Your task to perform on an android device: What's the weather going to be this weekend? Image 0: 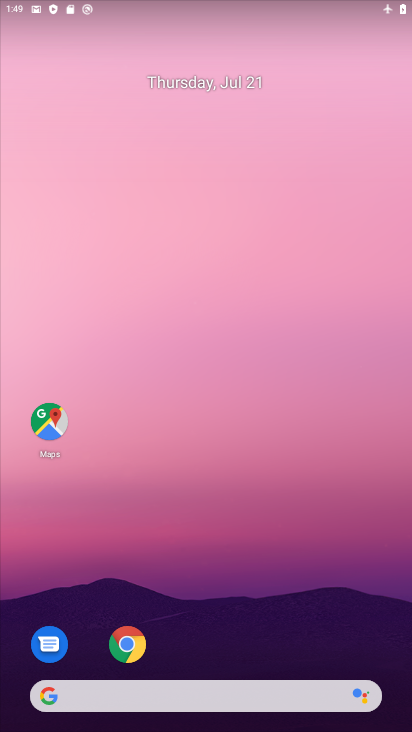
Step 0: drag from (256, 638) to (226, 214)
Your task to perform on an android device: What's the weather going to be this weekend? Image 1: 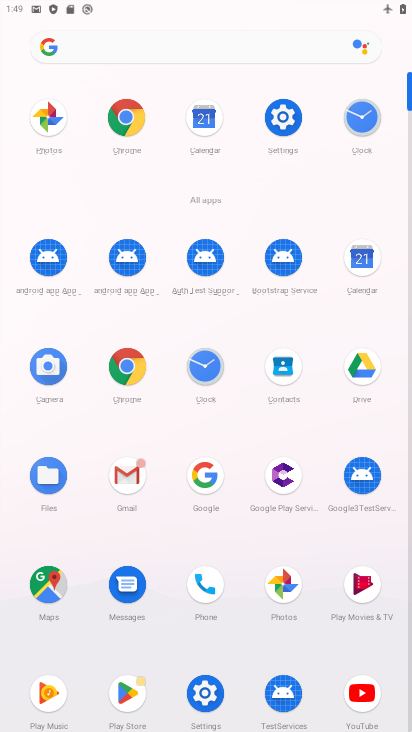
Step 1: click (123, 120)
Your task to perform on an android device: What's the weather going to be this weekend? Image 2: 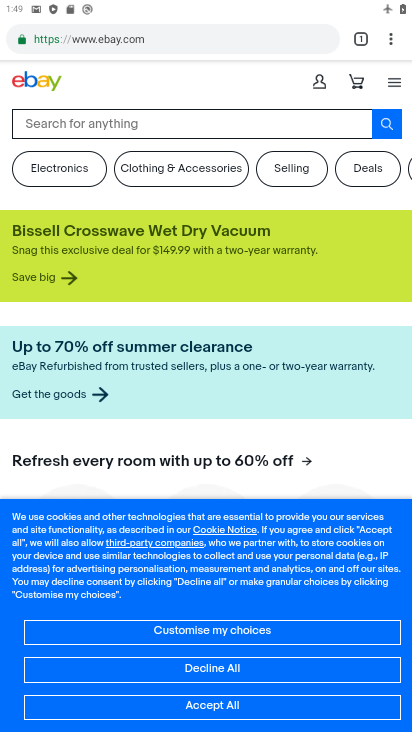
Step 2: click (283, 33)
Your task to perform on an android device: What's the weather going to be this weekend? Image 3: 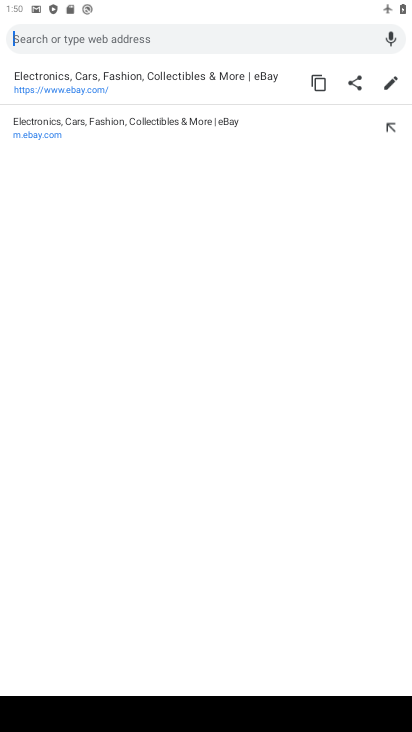
Step 3: type "What's the weather going to be this weekend?"
Your task to perform on an android device: What's the weather going to be this weekend? Image 4: 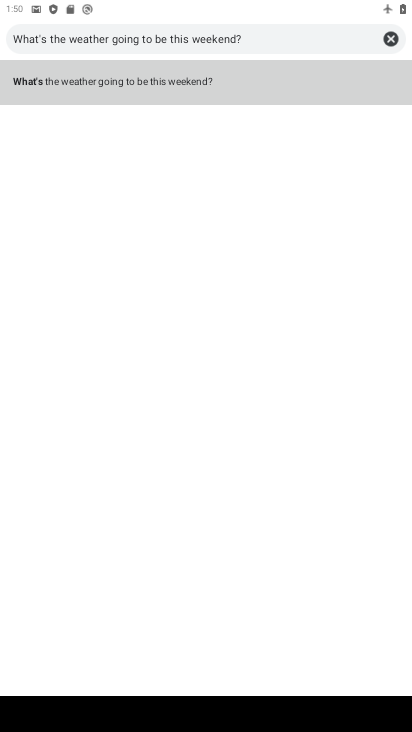
Step 4: click (206, 90)
Your task to perform on an android device: What's the weather going to be this weekend? Image 5: 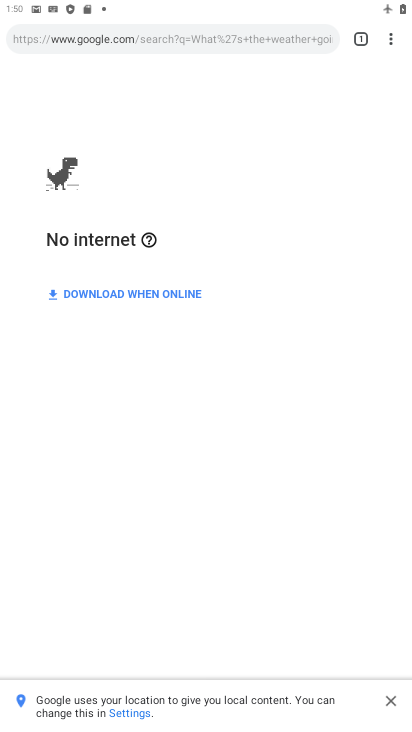
Step 5: task complete